Your task to perform on an android device: move an email to a new category in the gmail app Image 0: 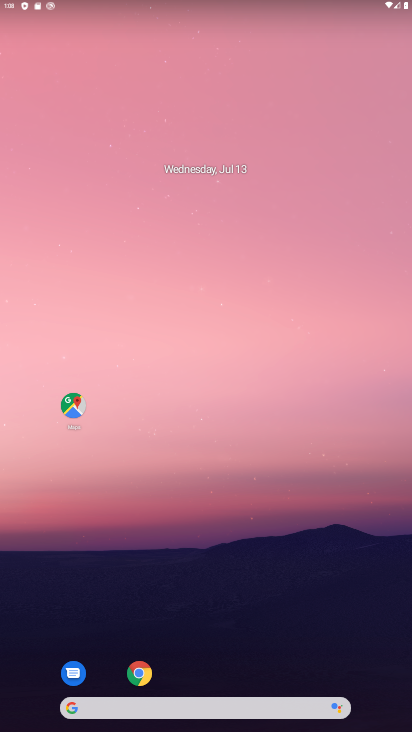
Step 0: drag from (174, 656) to (195, 11)
Your task to perform on an android device: move an email to a new category in the gmail app Image 1: 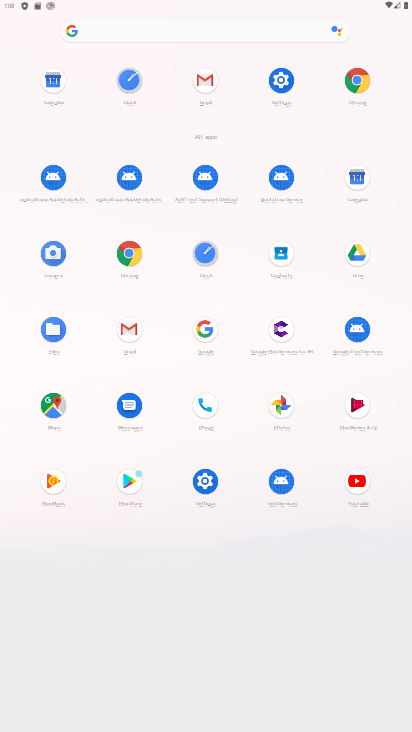
Step 1: click (134, 358)
Your task to perform on an android device: move an email to a new category in the gmail app Image 2: 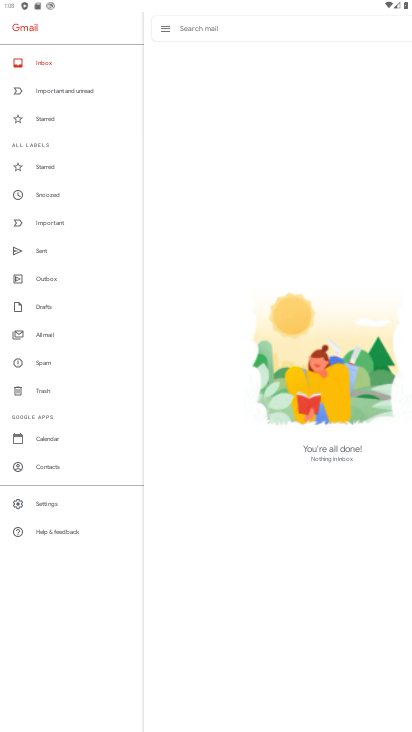
Step 2: task complete